Your task to perform on an android device: change the clock display to show seconds Image 0: 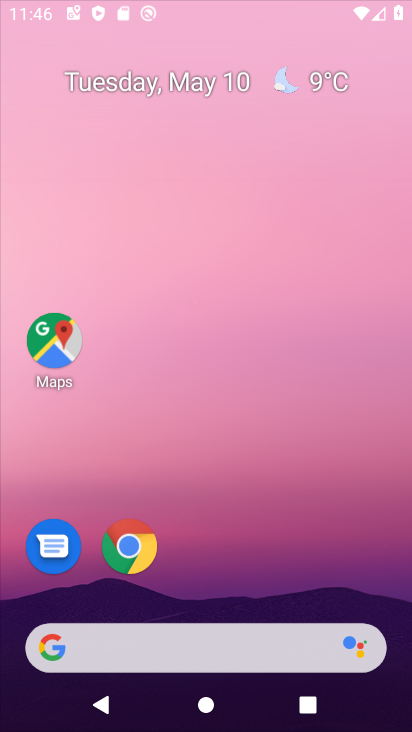
Step 0: click (220, 268)
Your task to perform on an android device: change the clock display to show seconds Image 1: 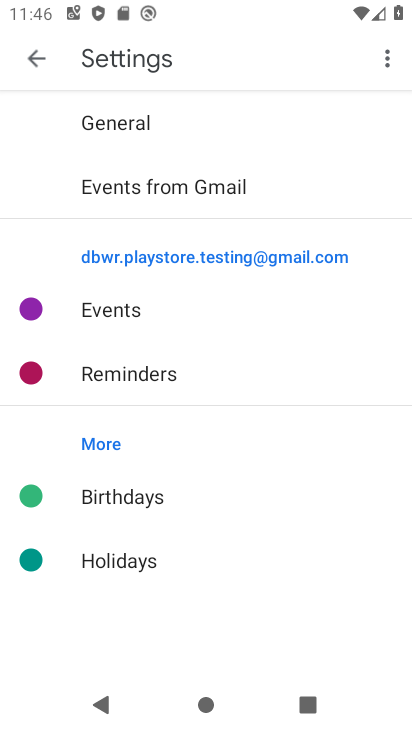
Step 1: drag from (208, 575) to (292, 237)
Your task to perform on an android device: change the clock display to show seconds Image 2: 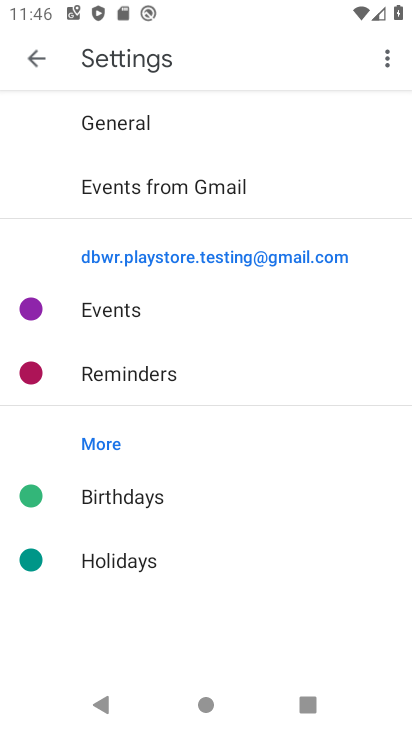
Step 2: press home button
Your task to perform on an android device: change the clock display to show seconds Image 3: 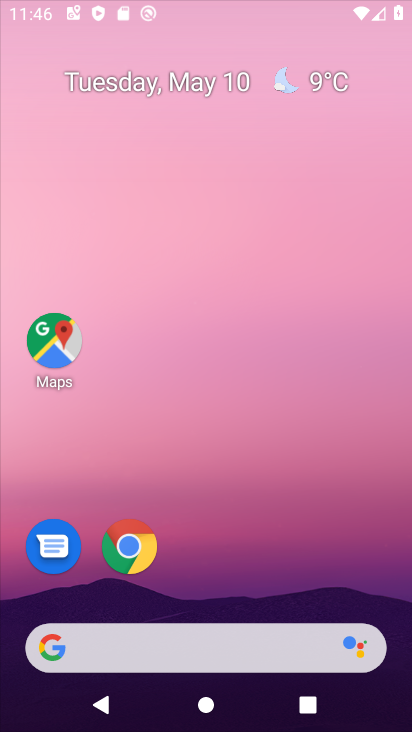
Step 3: drag from (224, 617) to (319, 285)
Your task to perform on an android device: change the clock display to show seconds Image 4: 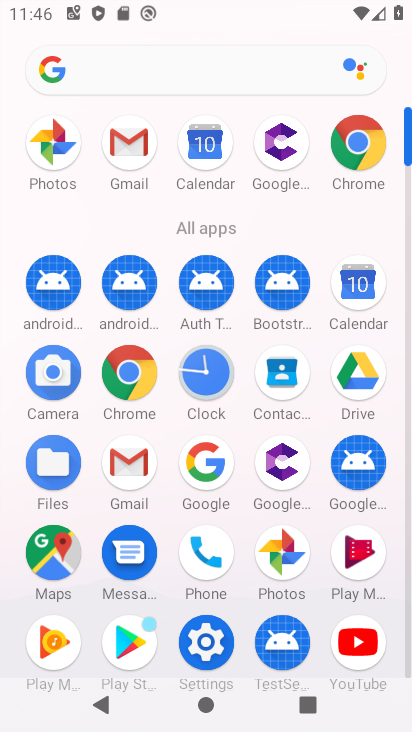
Step 4: click (191, 366)
Your task to perform on an android device: change the clock display to show seconds Image 5: 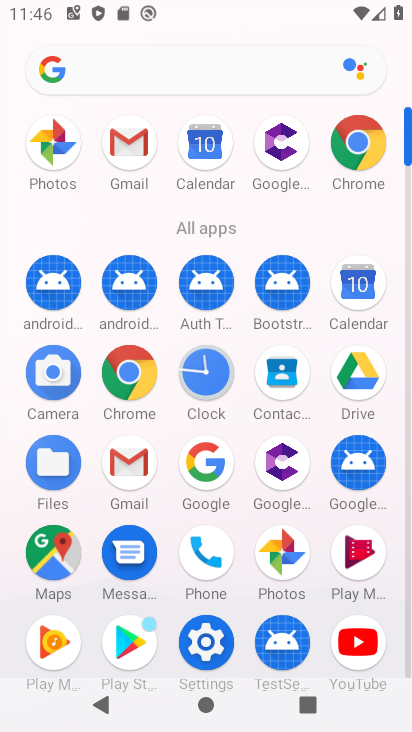
Step 5: click (191, 366)
Your task to perform on an android device: change the clock display to show seconds Image 6: 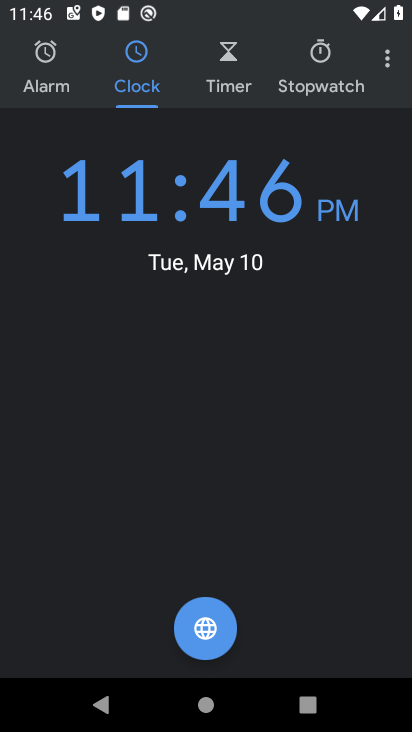
Step 6: click (386, 70)
Your task to perform on an android device: change the clock display to show seconds Image 7: 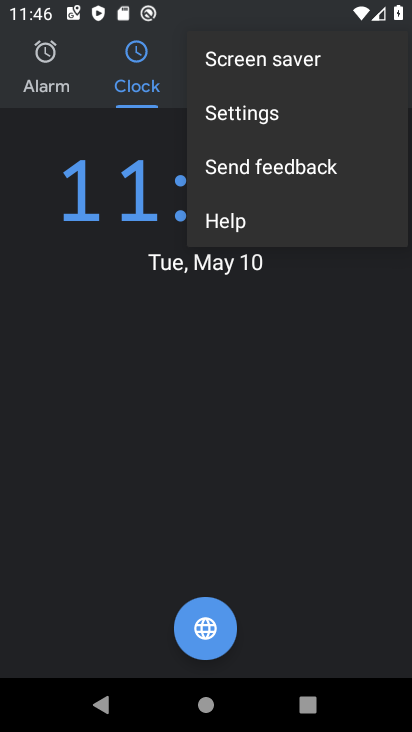
Step 7: click (284, 124)
Your task to perform on an android device: change the clock display to show seconds Image 8: 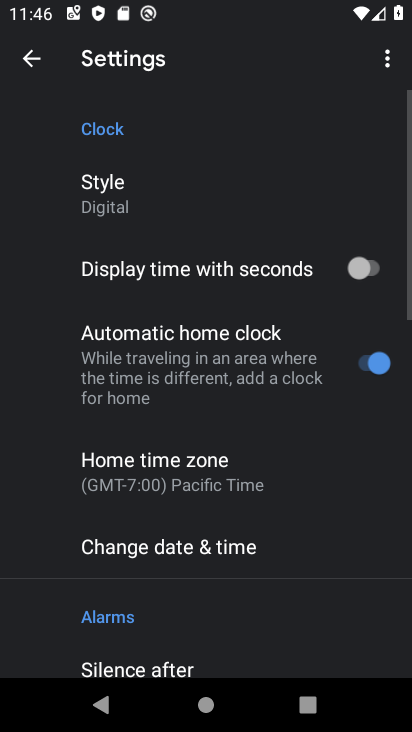
Step 8: click (325, 275)
Your task to perform on an android device: change the clock display to show seconds Image 9: 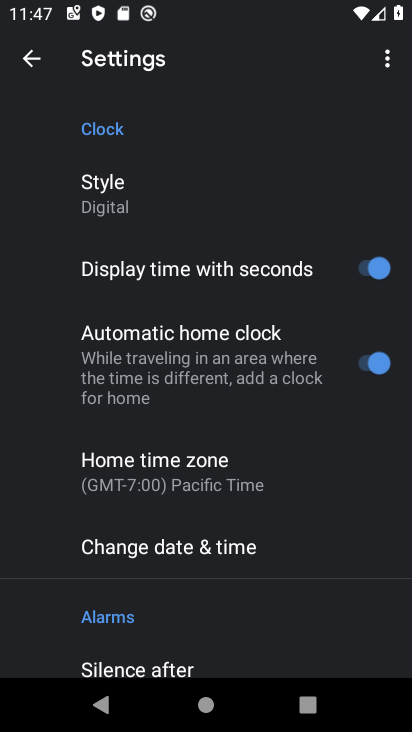
Step 9: task complete